Your task to perform on an android device: toggle pop-ups in chrome Image 0: 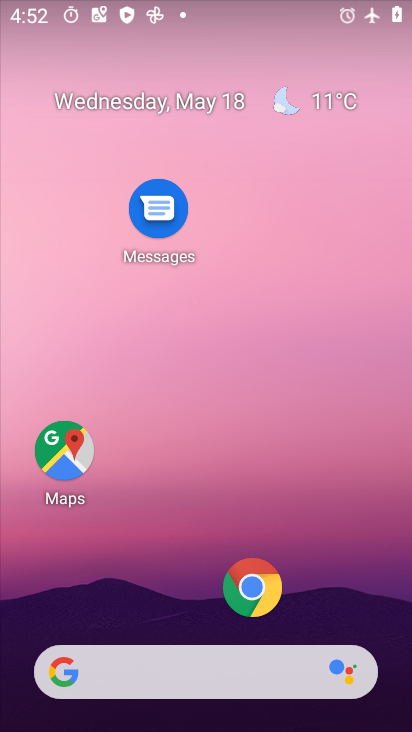
Step 0: drag from (257, 598) to (281, 213)
Your task to perform on an android device: toggle pop-ups in chrome Image 1: 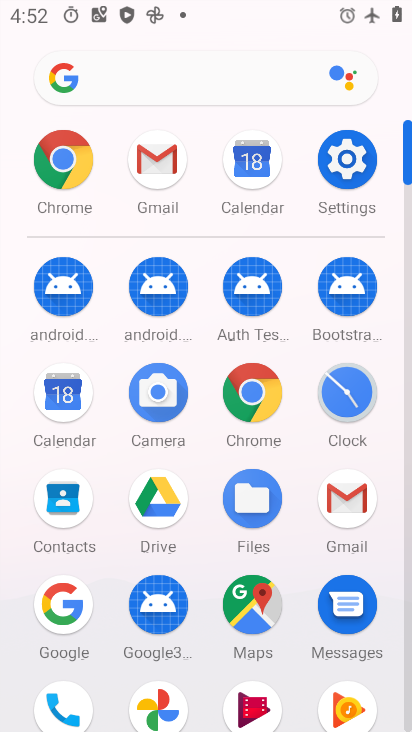
Step 1: click (47, 188)
Your task to perform on an android device: toggle pop-ups in chrome Image 2: 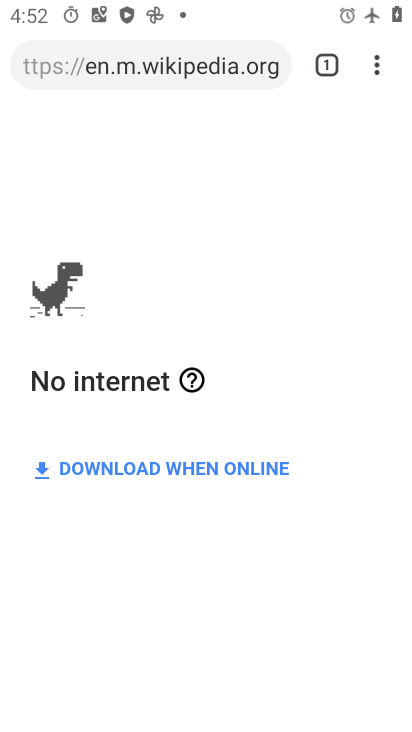
Step 2: click (374, 73)
Your task to perform on an android device: toggle pop-ups in chrome Image 3: 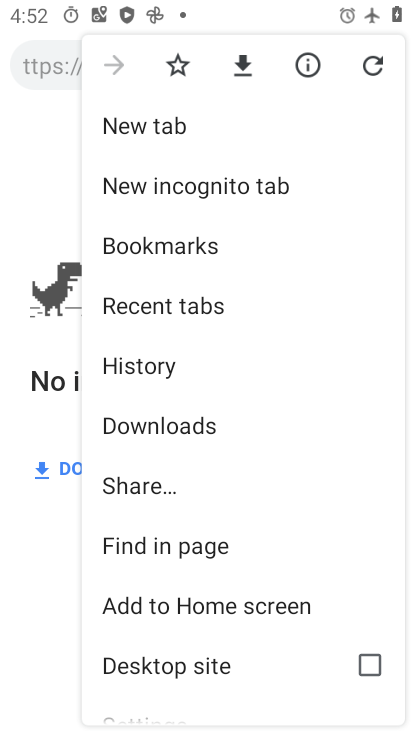
Step 3: drag from (177, 608) to (221, 417)
Your task to perform on an android device: toggle pop-ups in chrome Image 4: 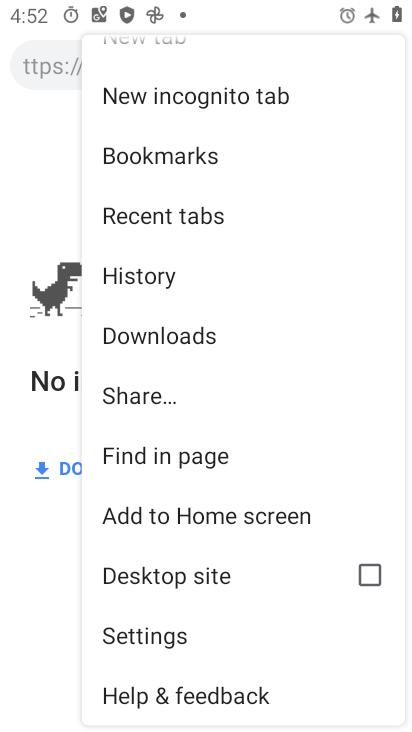
Step 4: click (182, 632)
Your task to perform on an android device: toggle pop-ups in chrome Image 5: 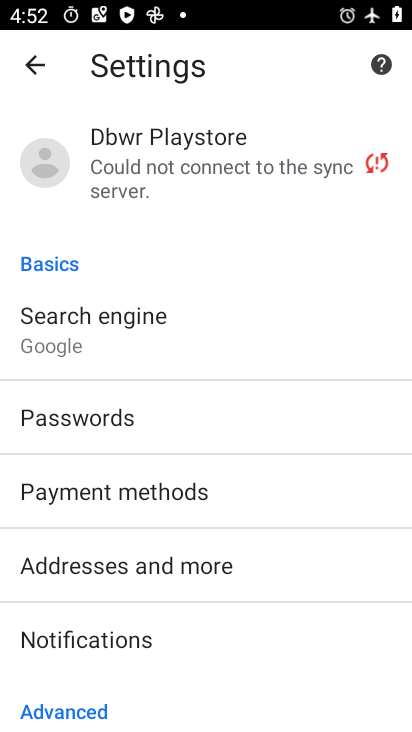
Step 5: drag from (262, 516) to (305, 113)
Your task to perform on an android device: toggle pop-ups in chrome Image 6: 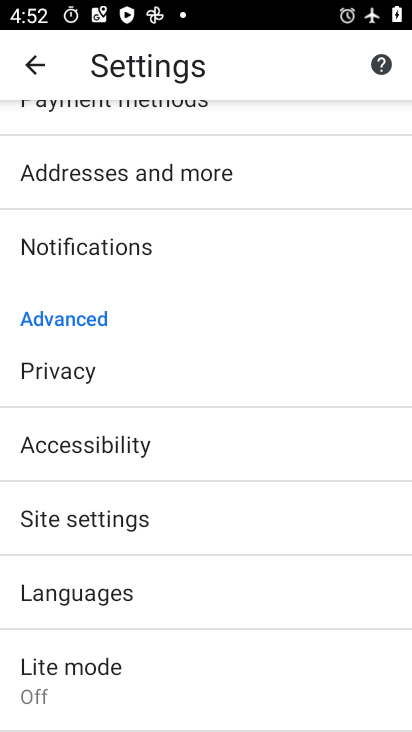
Step 6: click (137, 548)
Your task to perform on an android device: toggle pop-ups in chrome Image 7: 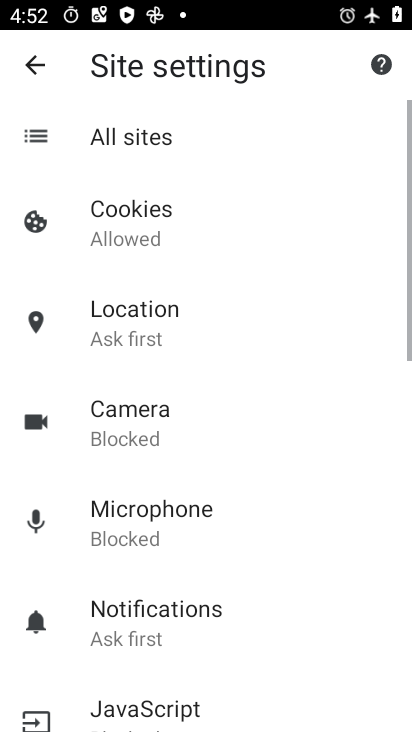
Step 7: drag from (150, 563) to (209, 180)
Your task to perform on an android device: toggle pop-ups in chrome Image 8: 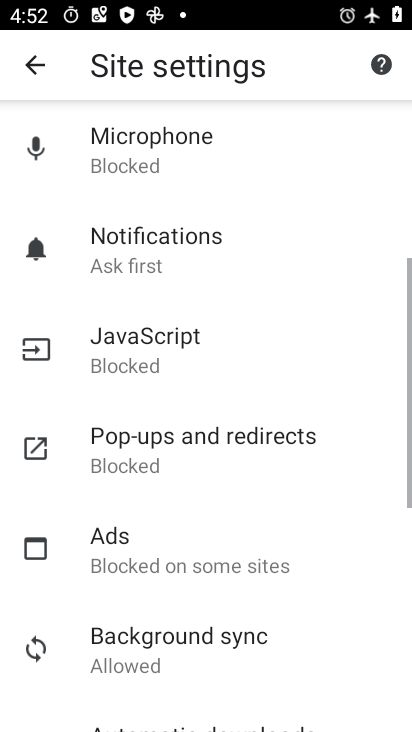
Step 8: click (209, 438)
Your task to perform on an android device: toggle pop-ups in chrome Image 9: 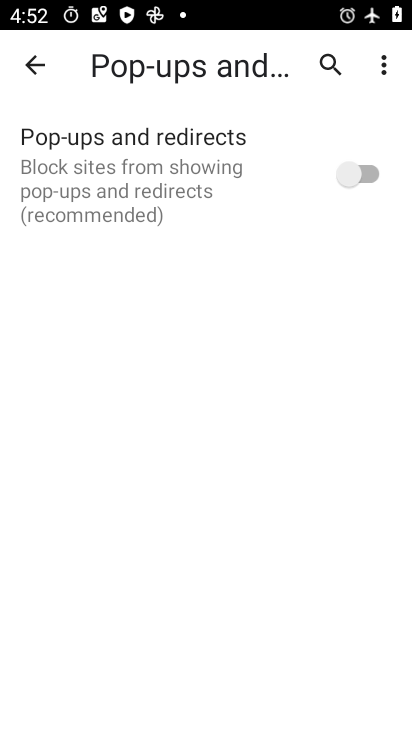
Step 9: click (366, 183)
Your task to perform on an android device: toggle pop-ups in chrome Image 10: 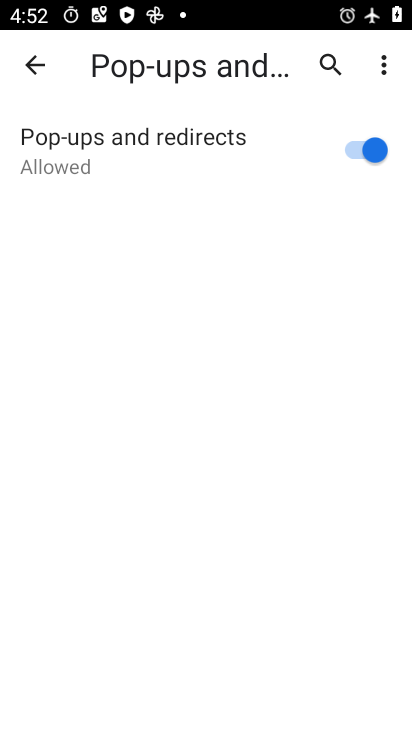
Step 10: task complete